Your task to perform on an android device: Open network settings Image 0: 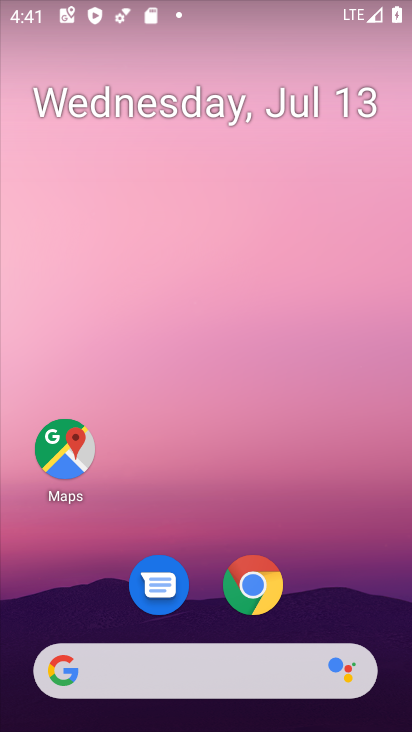
Step 0: drag from (218, 509) to (208, 24)
Your task to perform on an android device: Open network settings Image 1: 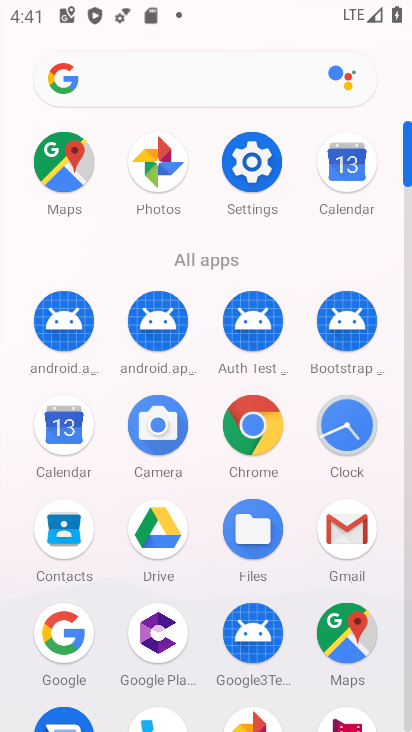
Step 1: click (255, 158)
Your task to perform on an android device: Open network settings Image 2: 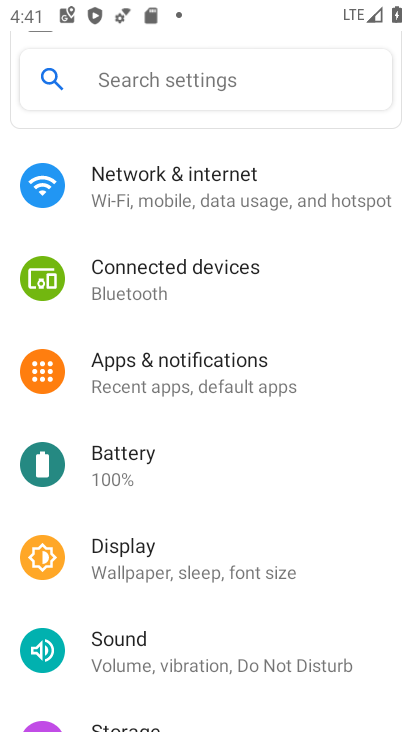
Step 2: click (204, 198)
Your task to perform on an android device: Open network settings Image 3: 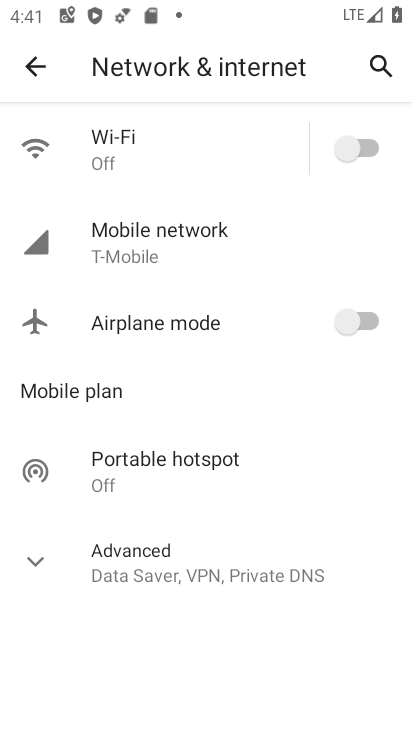
Step 3: task complete